Your task to perform on an android device: open app "Walmart Shopping & Grocery" (install if not already installed), go to login, and select forgot password Image 0: 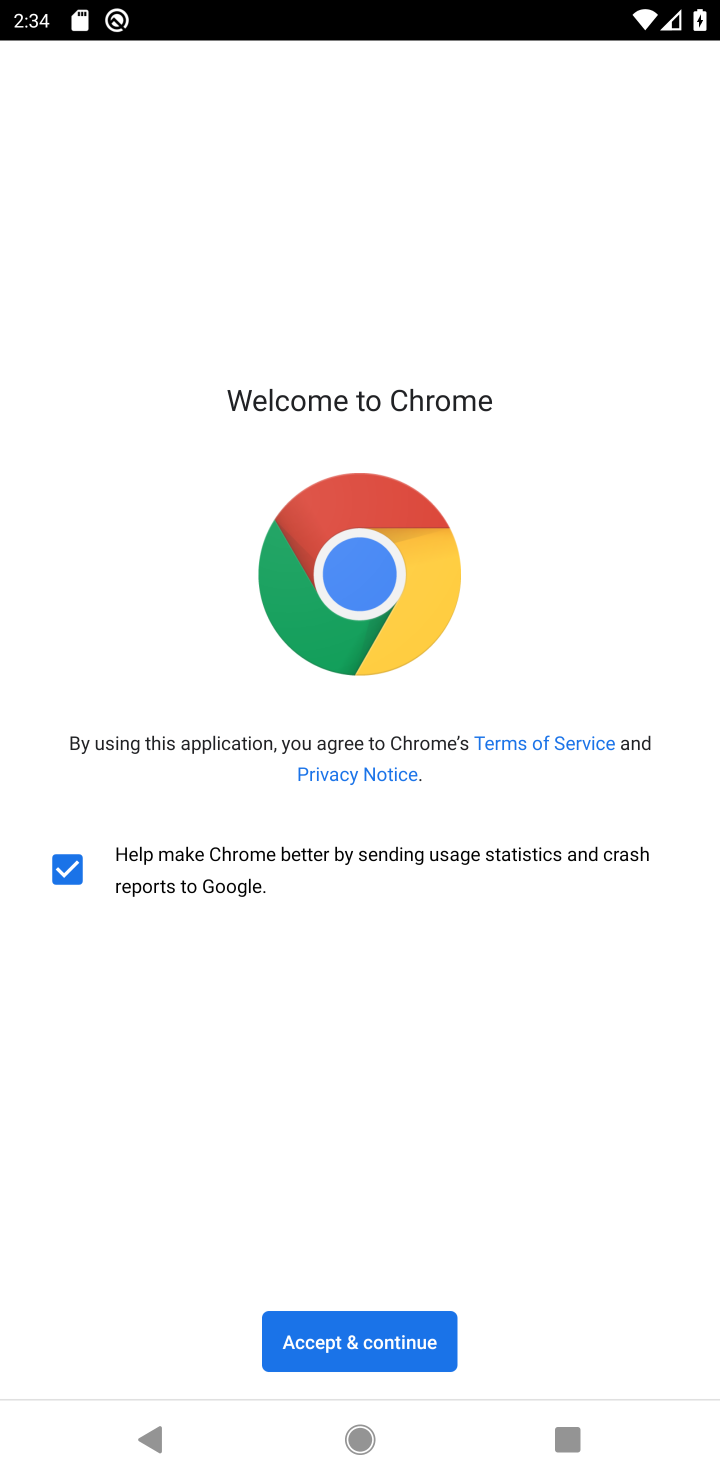
Step 0: press home button
Your task to perform on an android device: open app "Walmart Shopping & Grocery" (install if not already installed), go to login, and select forgot password Image 1: 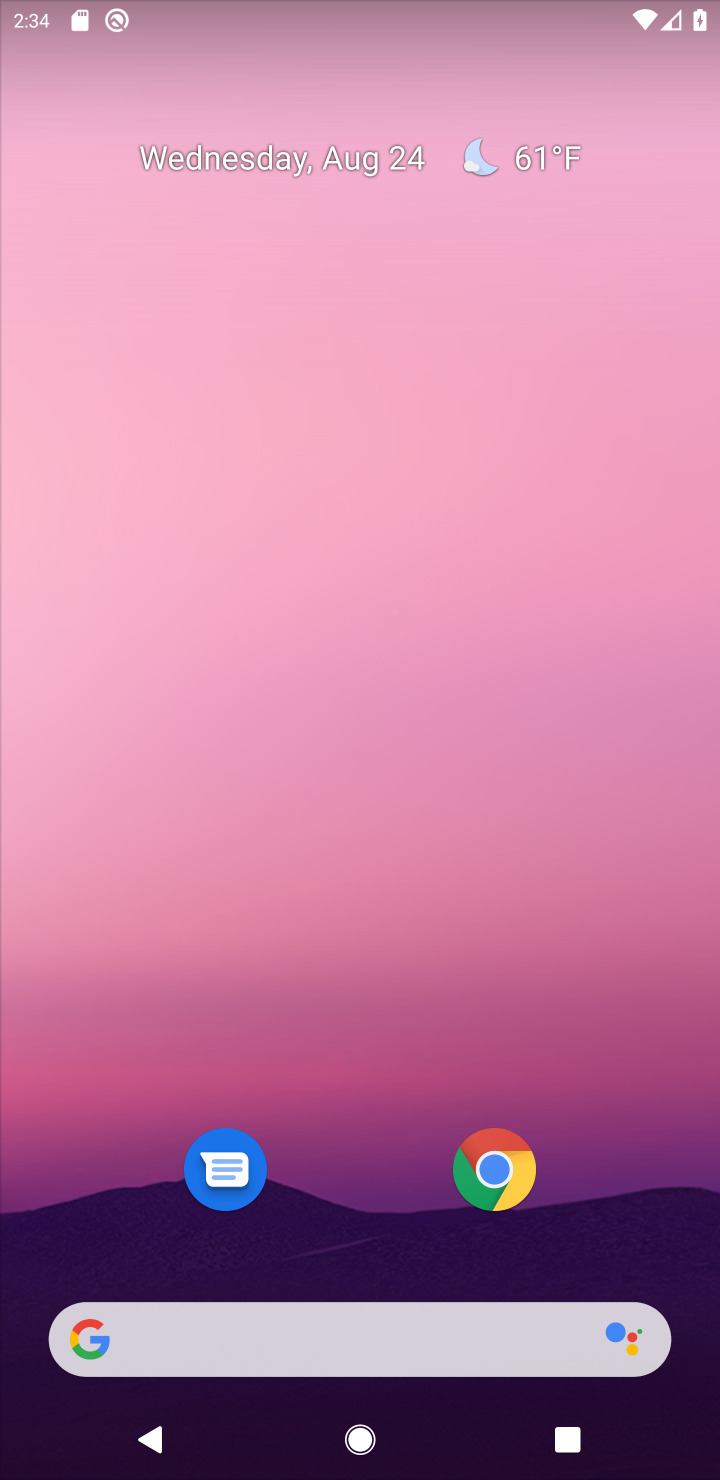
Step 1: drag from (369, 1282) to (467, 48)
Your task to perform on an android device: open app "Walmart Shopping & Grocery" (install if not already installed), go to login, and select forgot password Image 2: 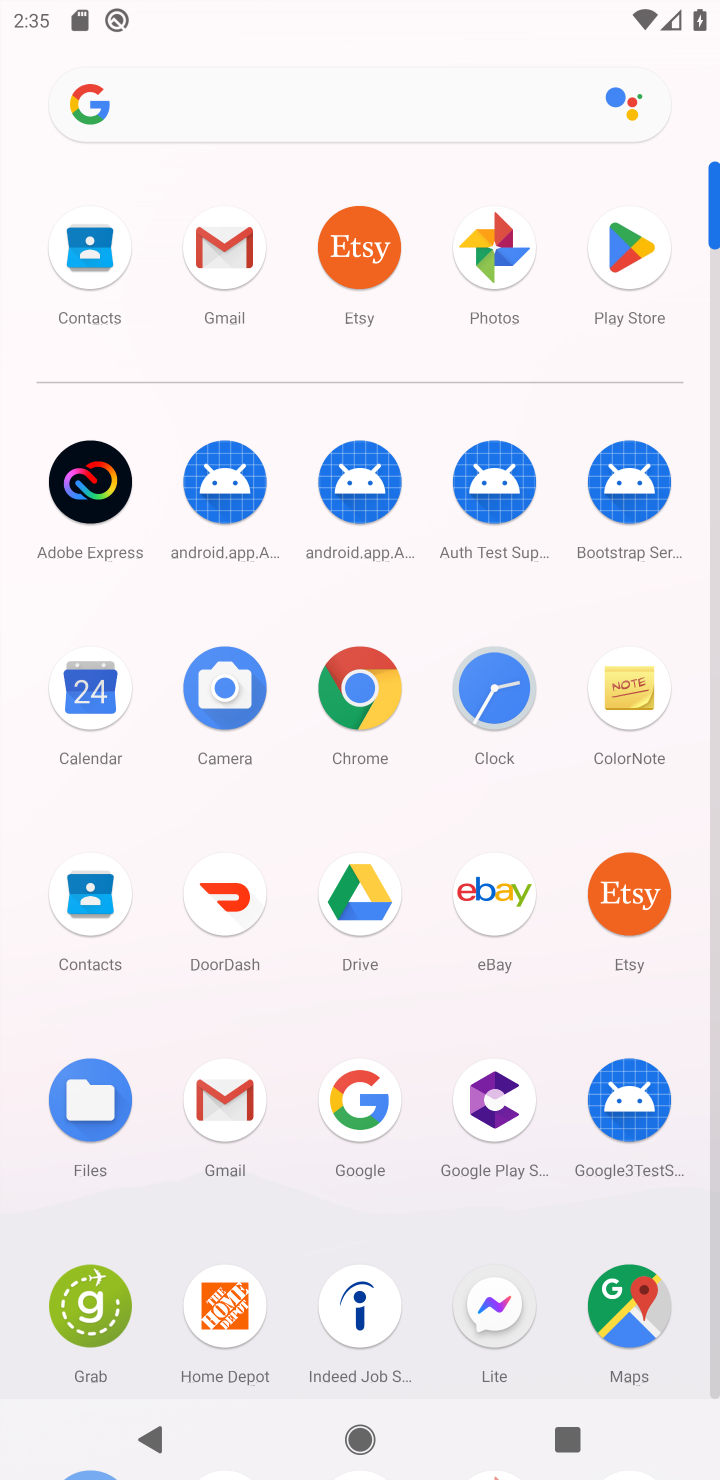
Step 2: click (604, 231)
Your task to perform on an android device: open app "Walmart Shopping & Grocery" (install if not already installed), go to login, and select forgot password Image 3: 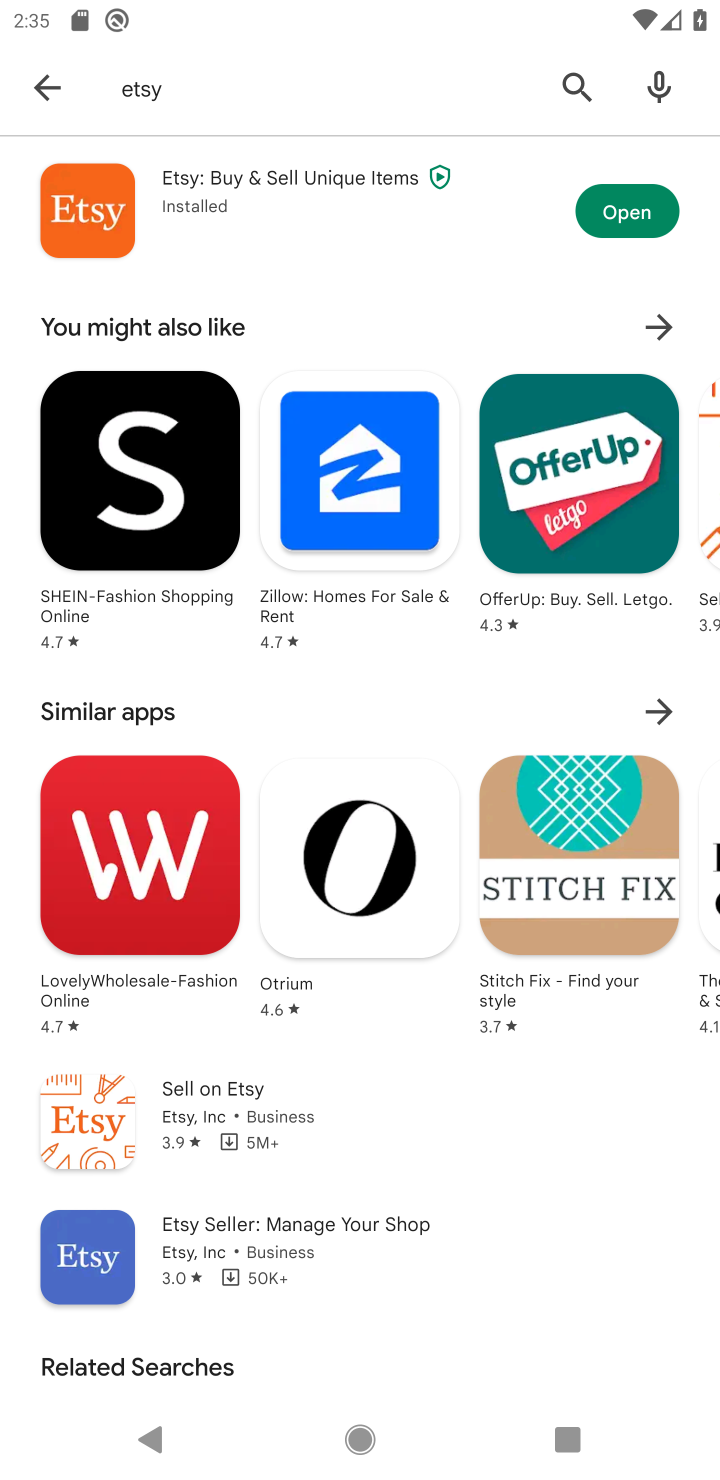
Step 3: click (55, 87)
Your task to perform on an android device: open app "Walmart Shopping & Grocery" (install if not already installed), go to login, and select forgot password Image 4: 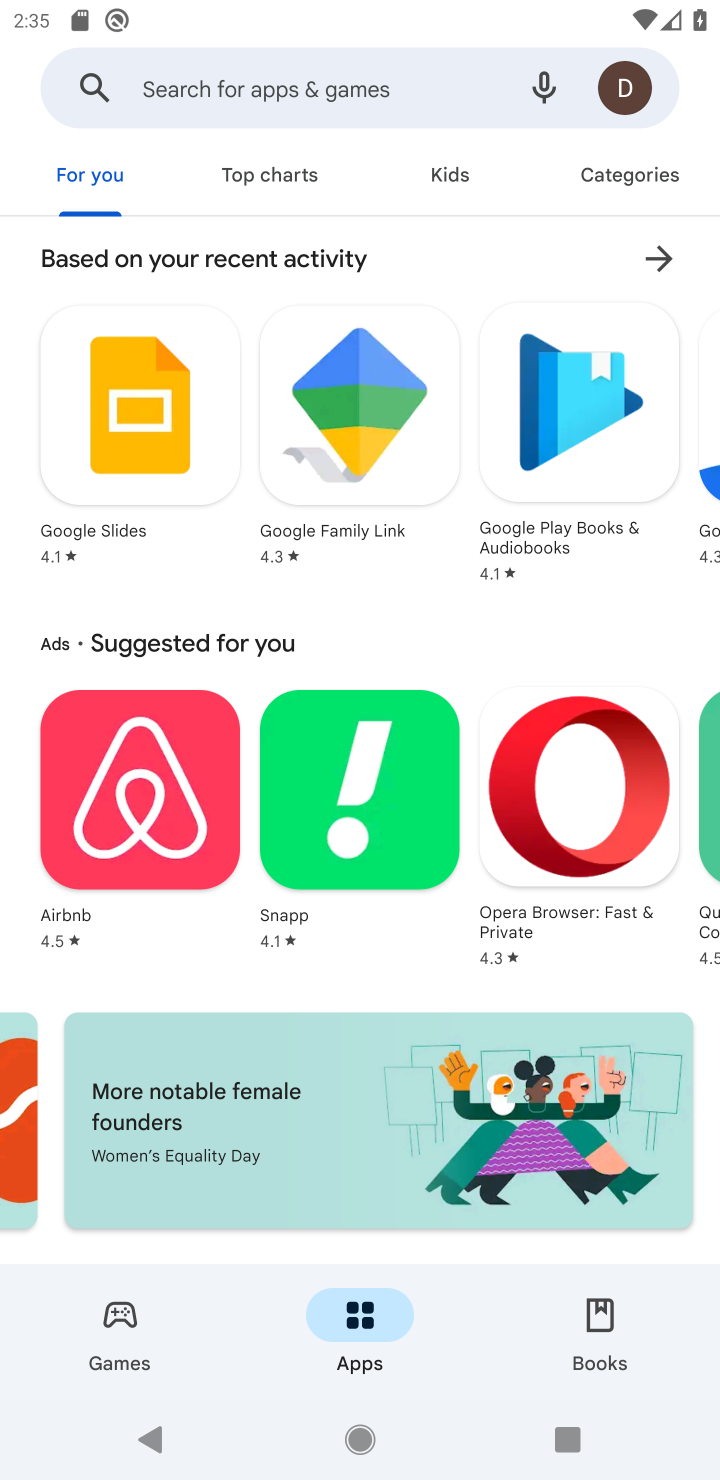
Step 4: click (155, 107)
Your task to perform on an android device: open app "Walmart Shopping & Grocery" (install if not already installed), go to login, and select forgot password Image 5: 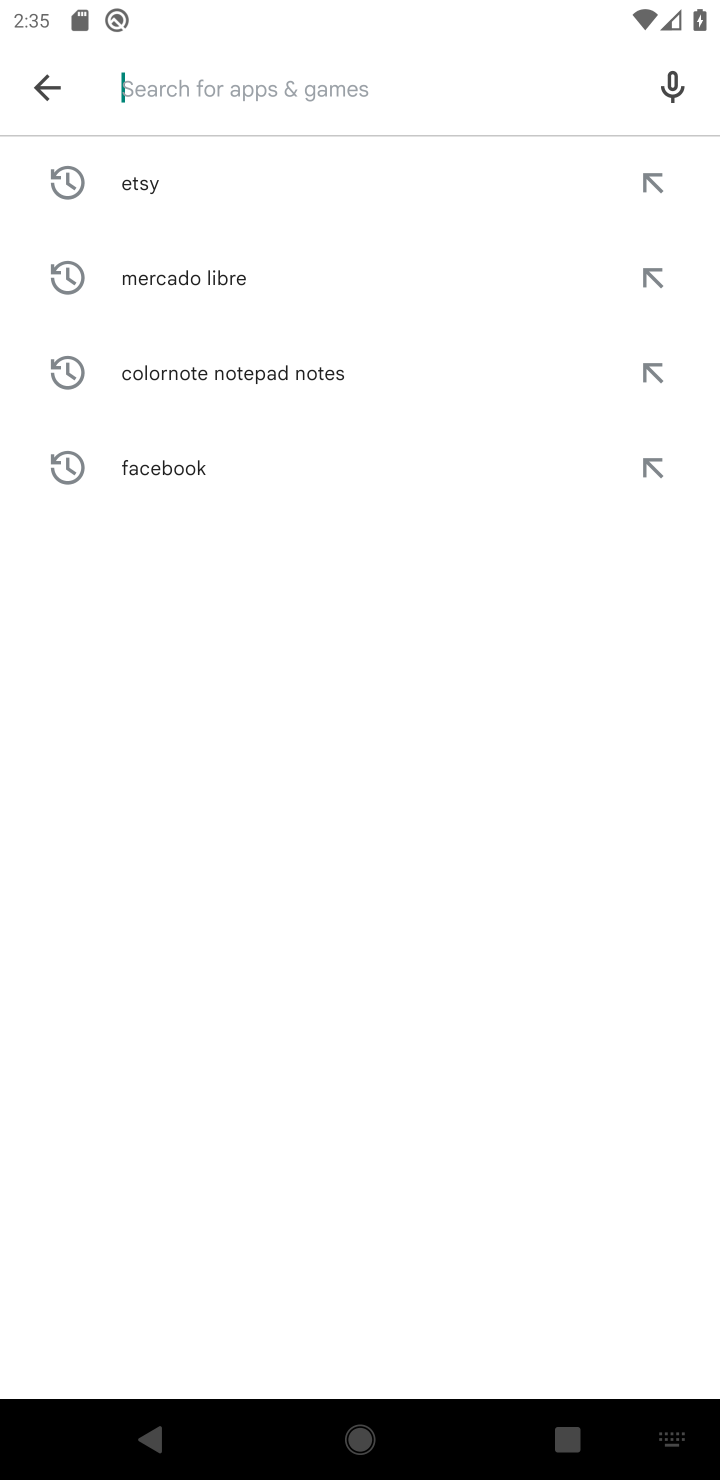
Step 5: type "Walmart Shopping & Grocery"
Your task to perform on an android device: open app "Walmart Shopping & Grocery" (install if not already installed), go to login, and select forgot password Image 6: 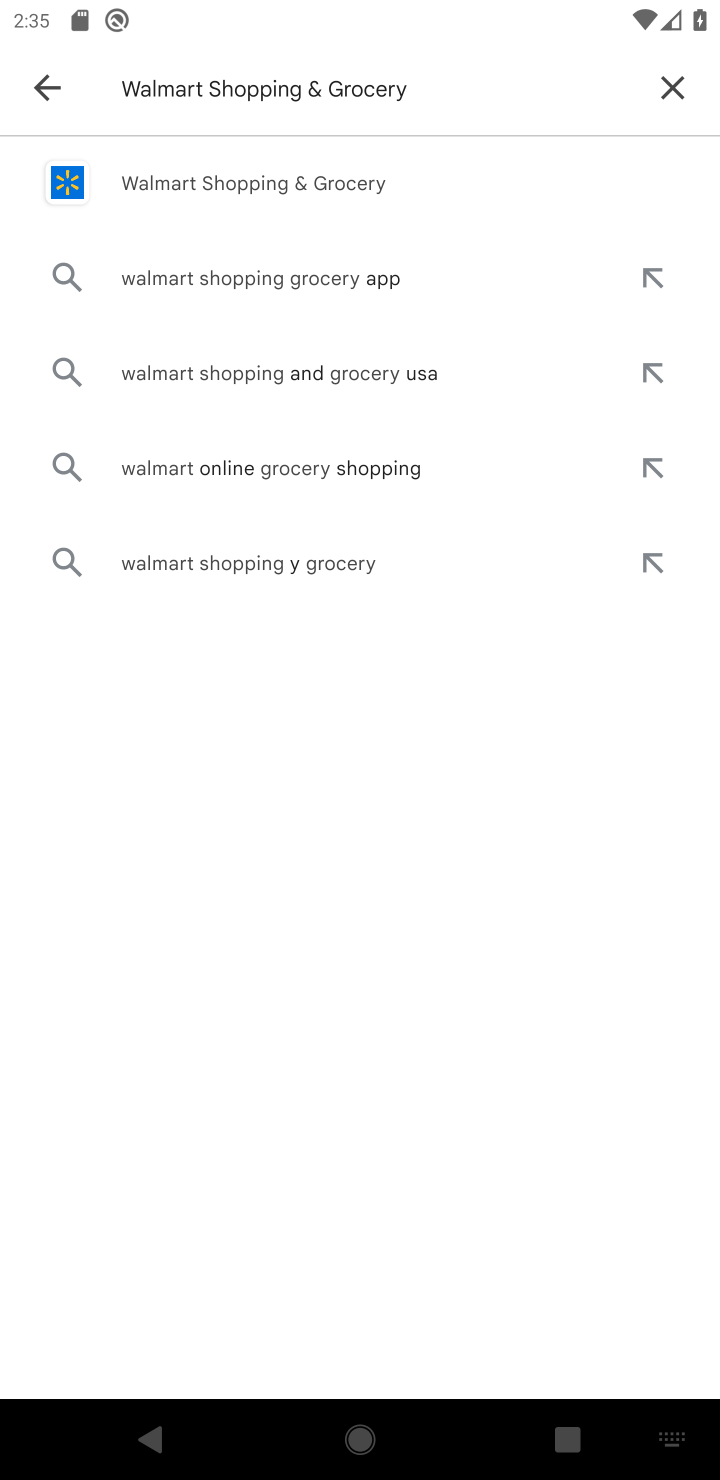
Step 6: click (210, 175)
Your task to perform on an android device: open app "Walmart Shopping & Grocery" (install if not already installed), go to login, and select forgot password Image 7: 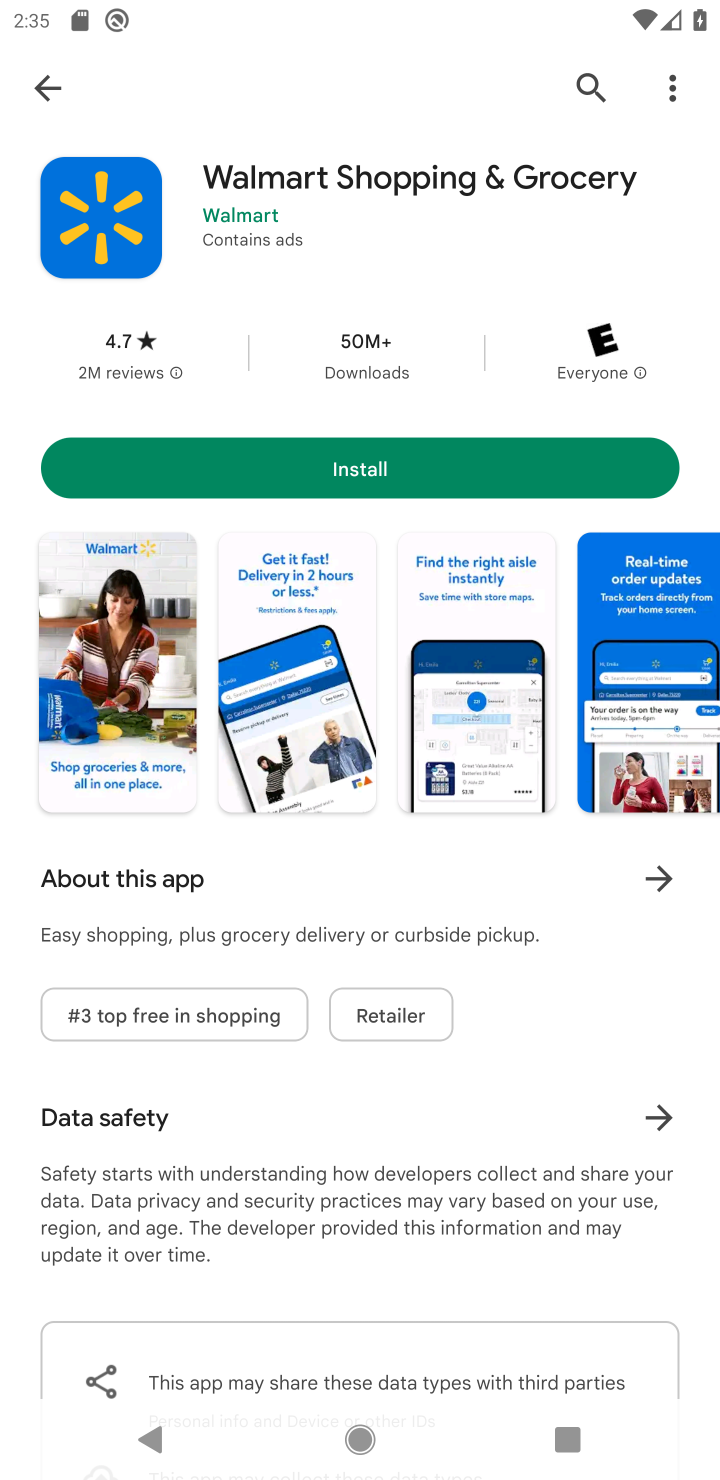
Step 7: click (230, 483)
Your task to perform on an android device: open app "Walmart Shopping & Grocery" (install if not already installed), go to login, and select forgot password Image 8: 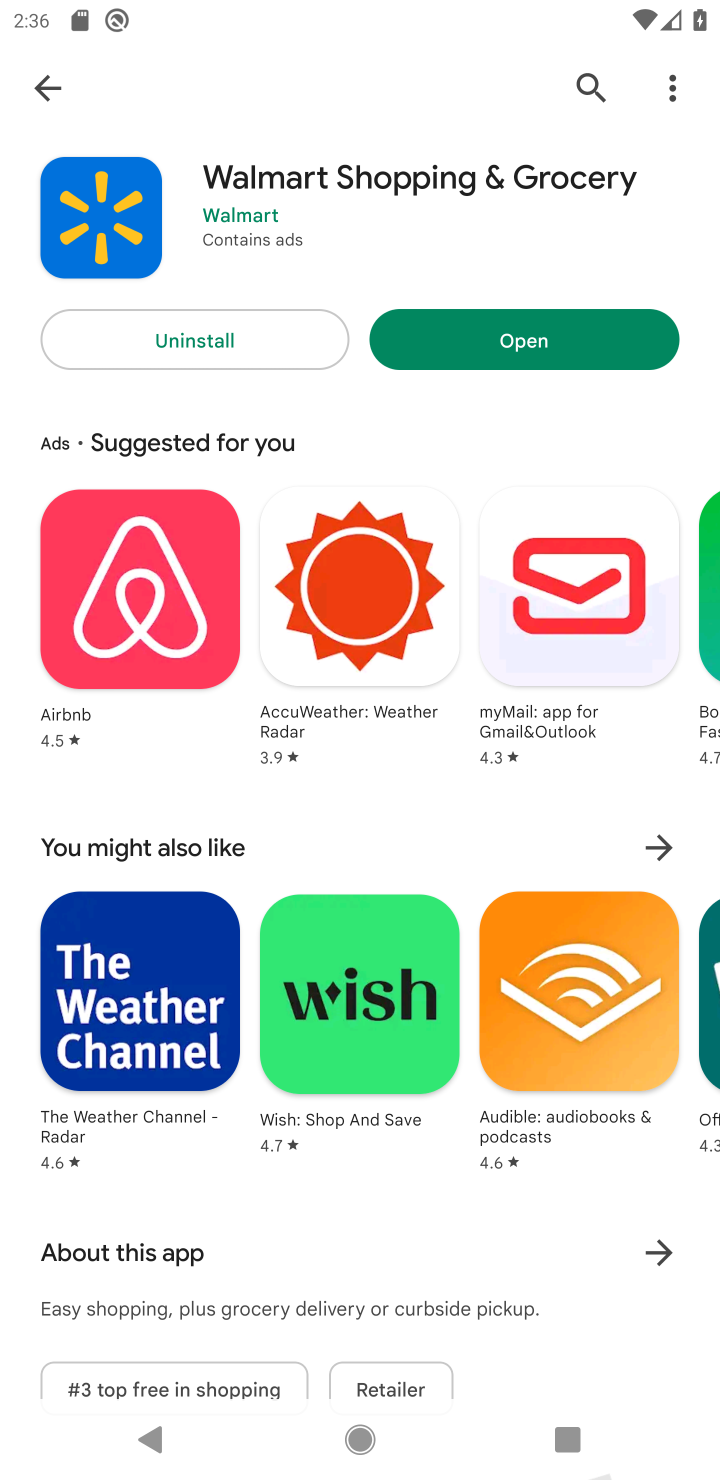
Step 8: click (501, 347)
Your task to perform on an android device: open app "Walmart Shopping & Grocery" (install if not already installed), go to login, and select forgot password Image 9: 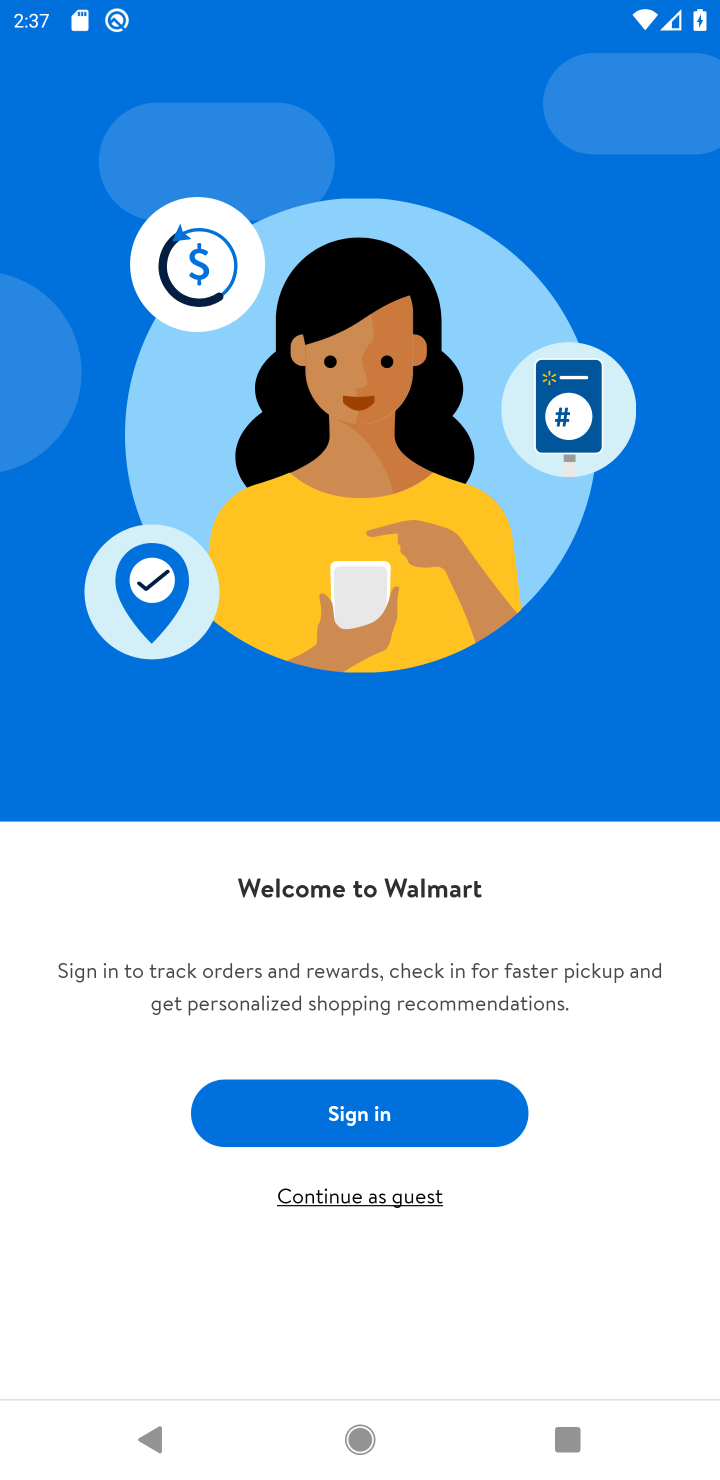
Step 9: click (402, 1143)
Your task to perform on an android device: open app "Walmart Shopping & Grocery" (install if not already installed), go to login, and select forgot password Image 10: 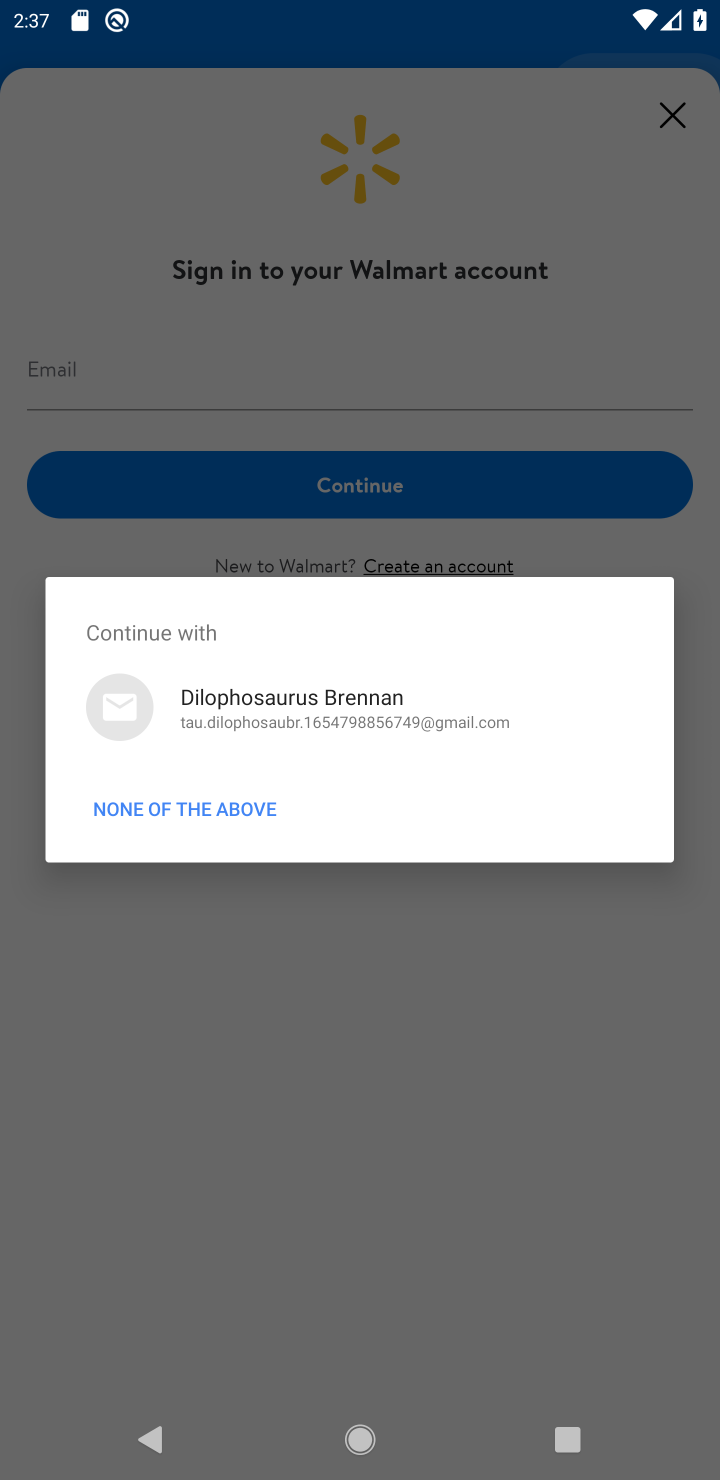
Step 10: click (294, 886)
Your task to perform on an android device: open app "Walmart Shopping & Grocery" (install if not already installed), go to login, and select forgot password Image 11: 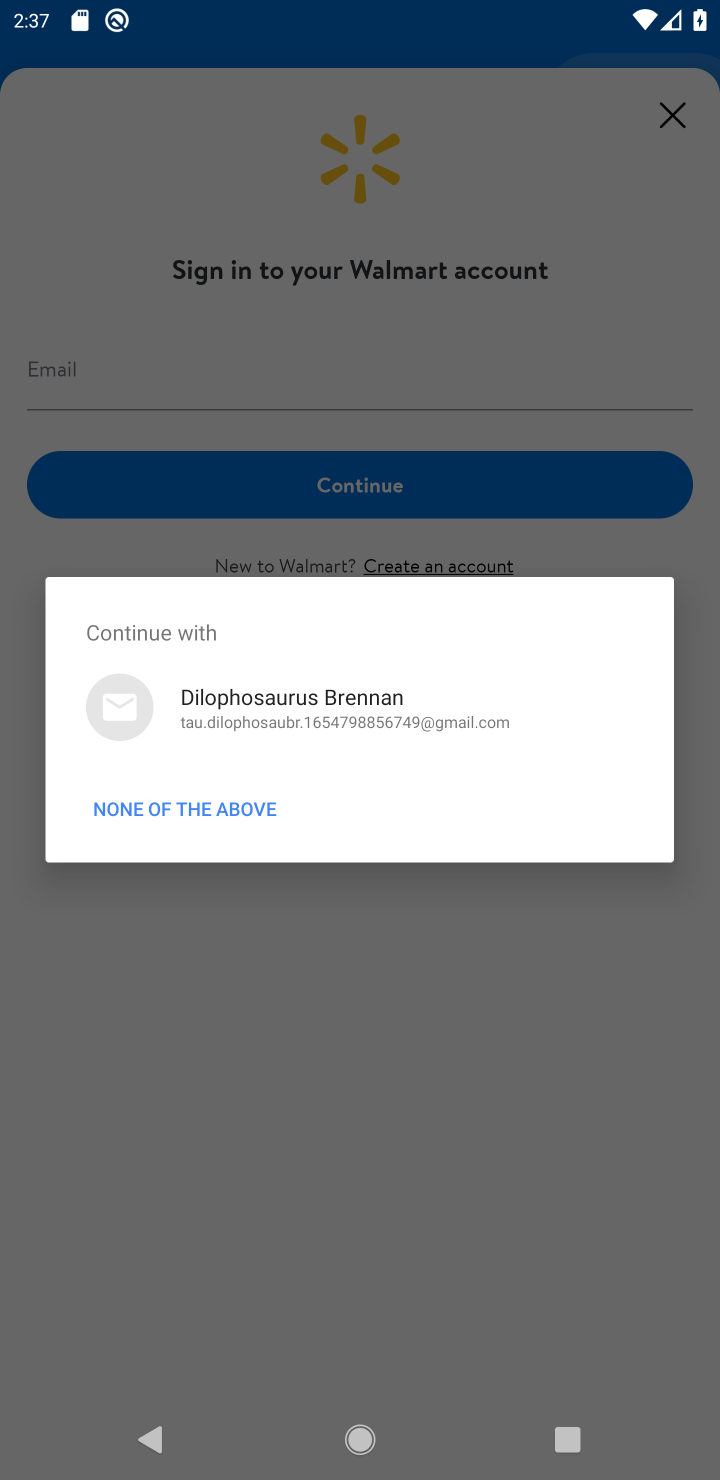
Step 11: click (227, 822)
Your task to perform on an android device: open app "Walmart Shopping & Grocery" (install if not already installed), go to login, and select forgot password Image 12: 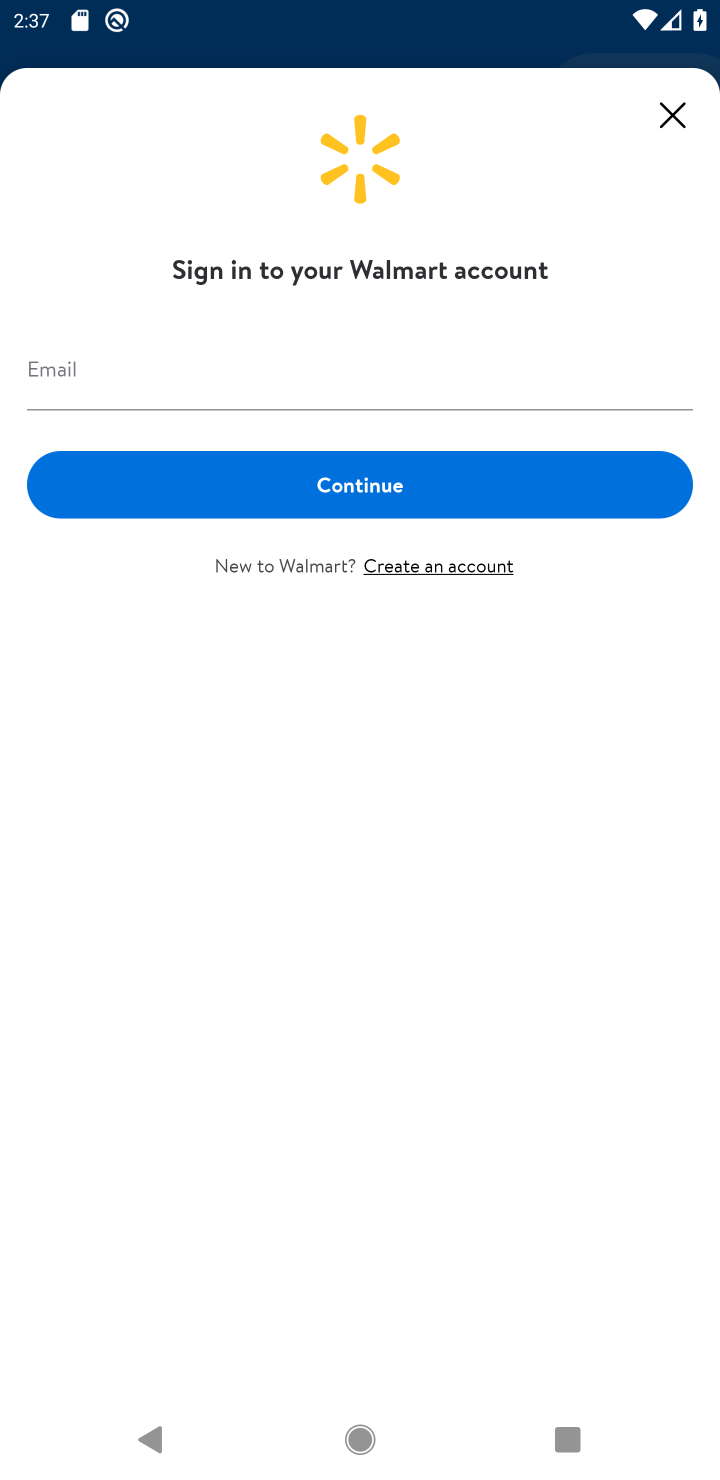
Step 12: task complete